Your task to perform on an android device: Go to Google Image 0: 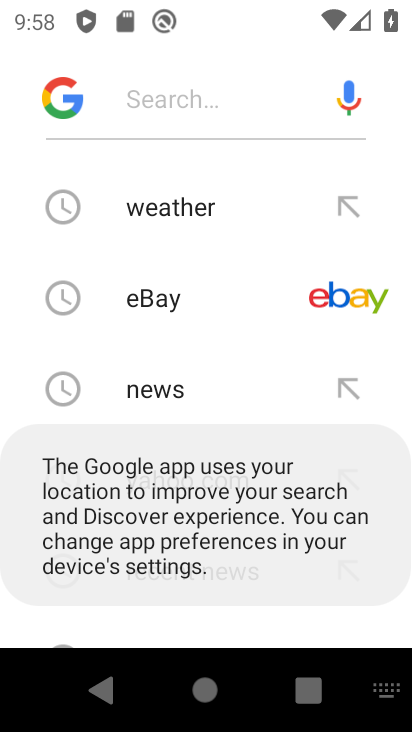
Step 0: press home button
Your task to perform on an android device: Go to Google Image 1: 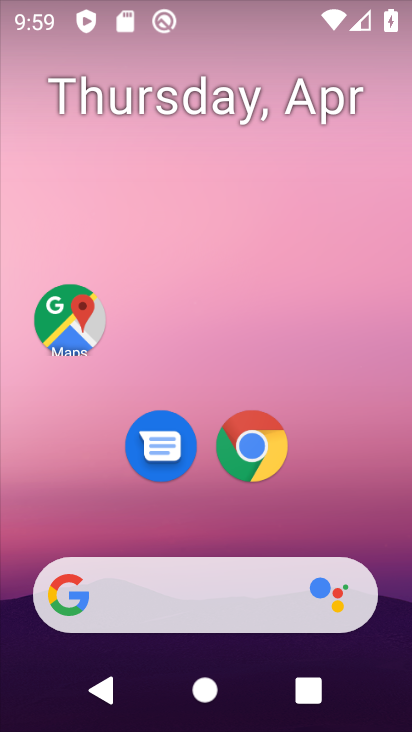
Step 1: drag from (344, 493) to (340, 15)
Your task to perform on an android device: Go to Google Image 2: 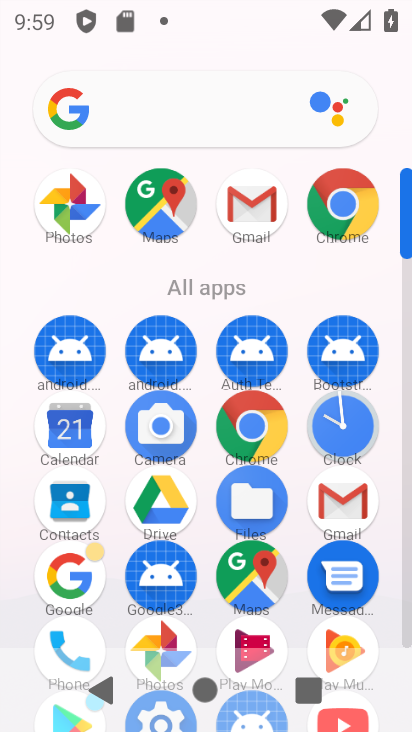
Step 2: drag from (387, 541) to (373, 302)
Your task to perform on an android device: Go to Google Image 3: 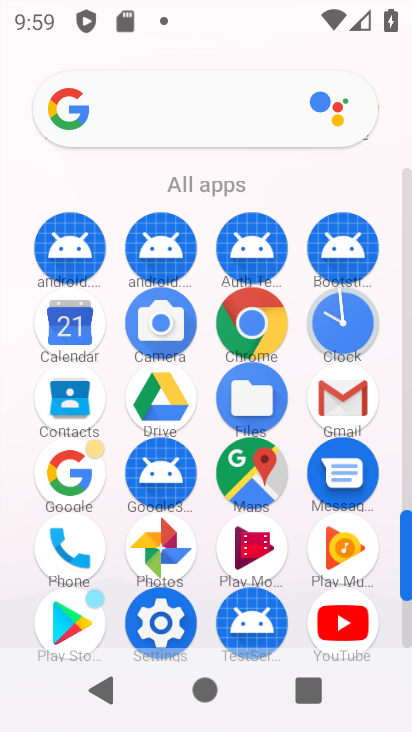
Step 3: click (71, 477)
Your task to perform on an android device: Go to Google Image 4: 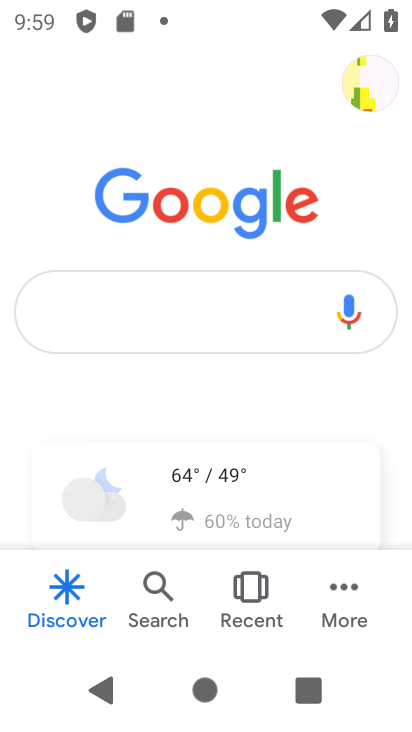
Step 4: task complete